Your task to perform on an android device: toggle sleep mode Image 0: 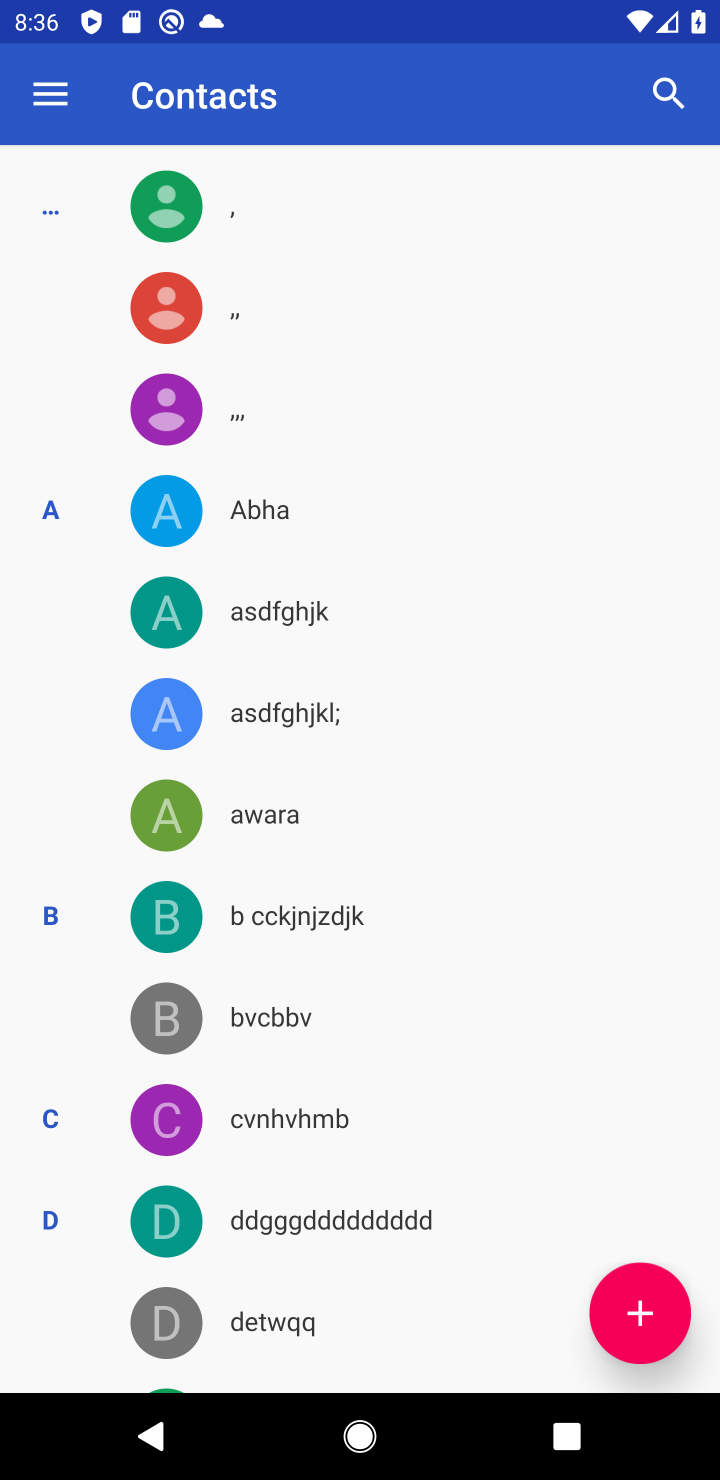
Step 0: press home button
Your task to perform on an android device: toggle sleep mode Image 1: 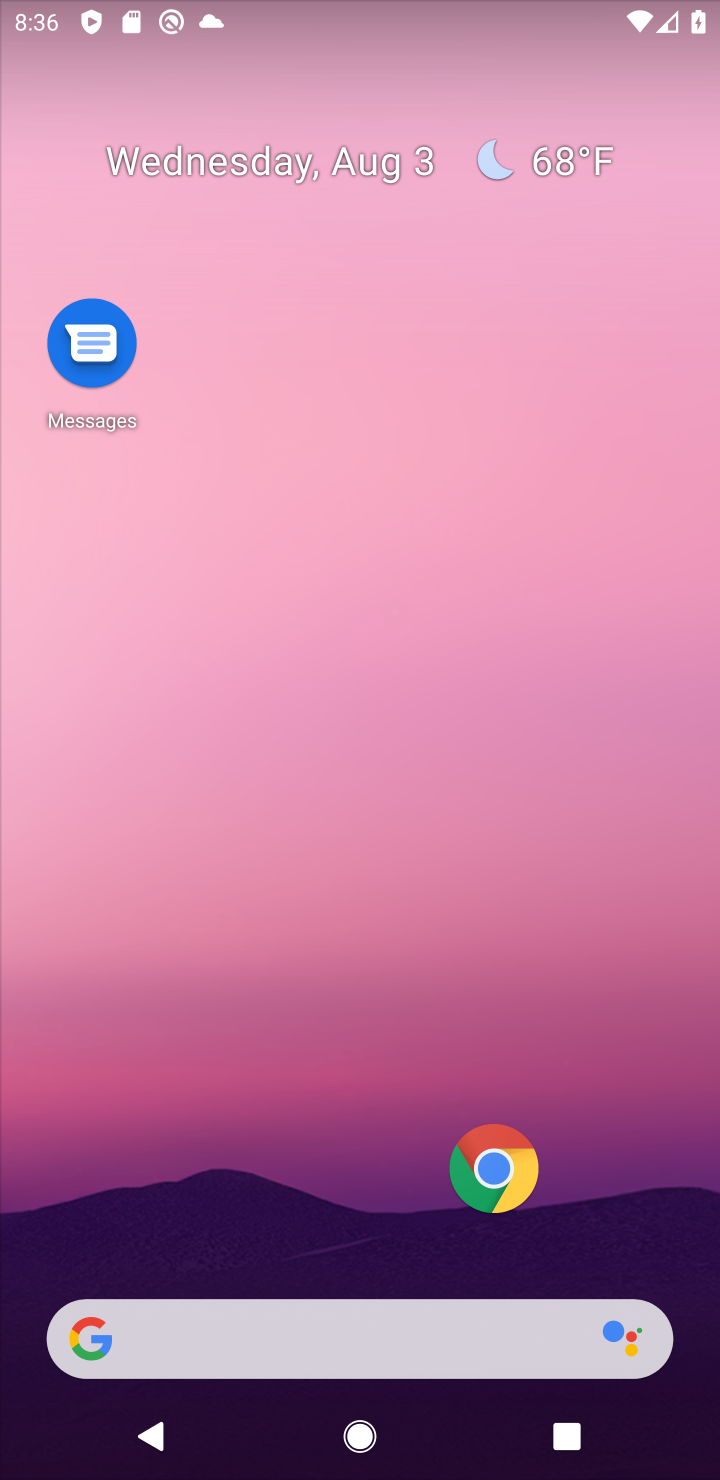
Step 1: drag from (367, 1232) to (221, 112)
Your task to perform on an android device: toggle sleep mode Image 2: 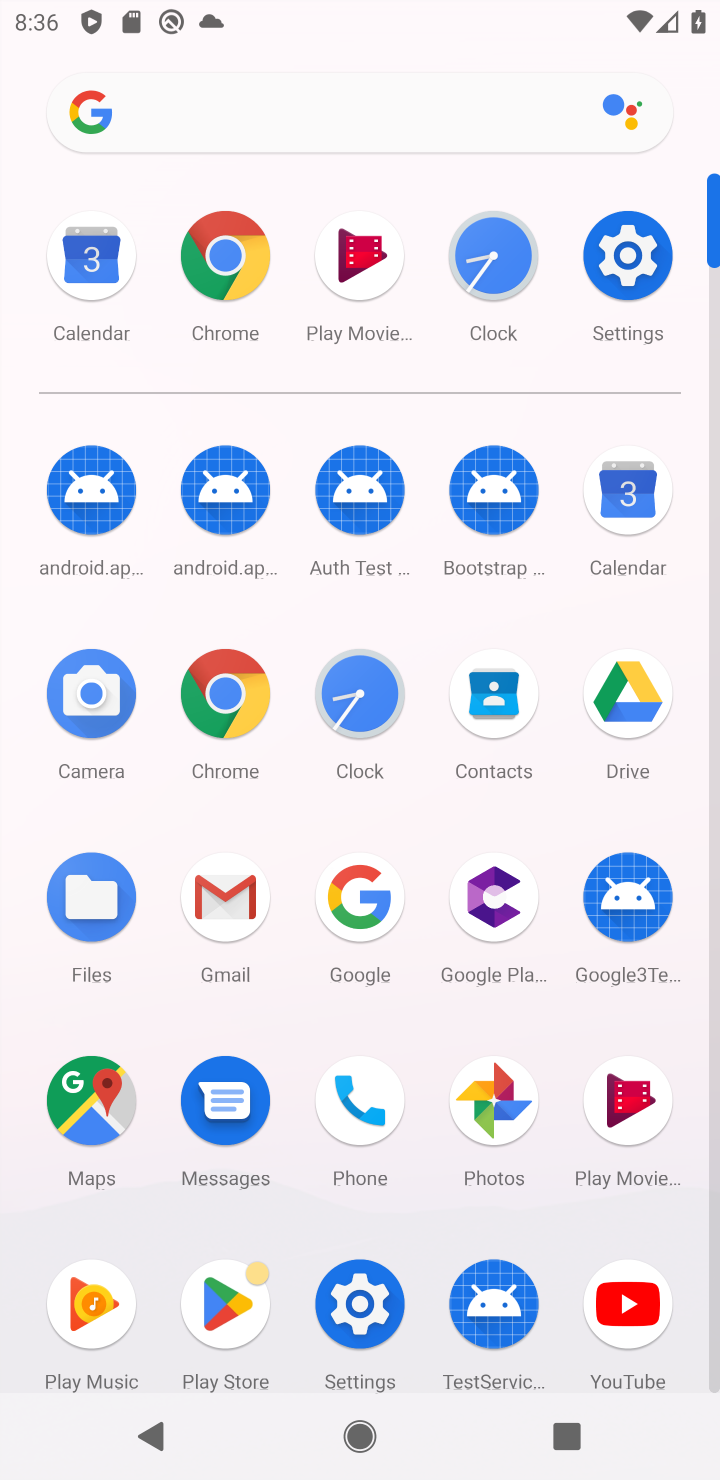
Step 2: click (373, 1300)
Your task to perform on an android device: toggle sleep mode Image 3: 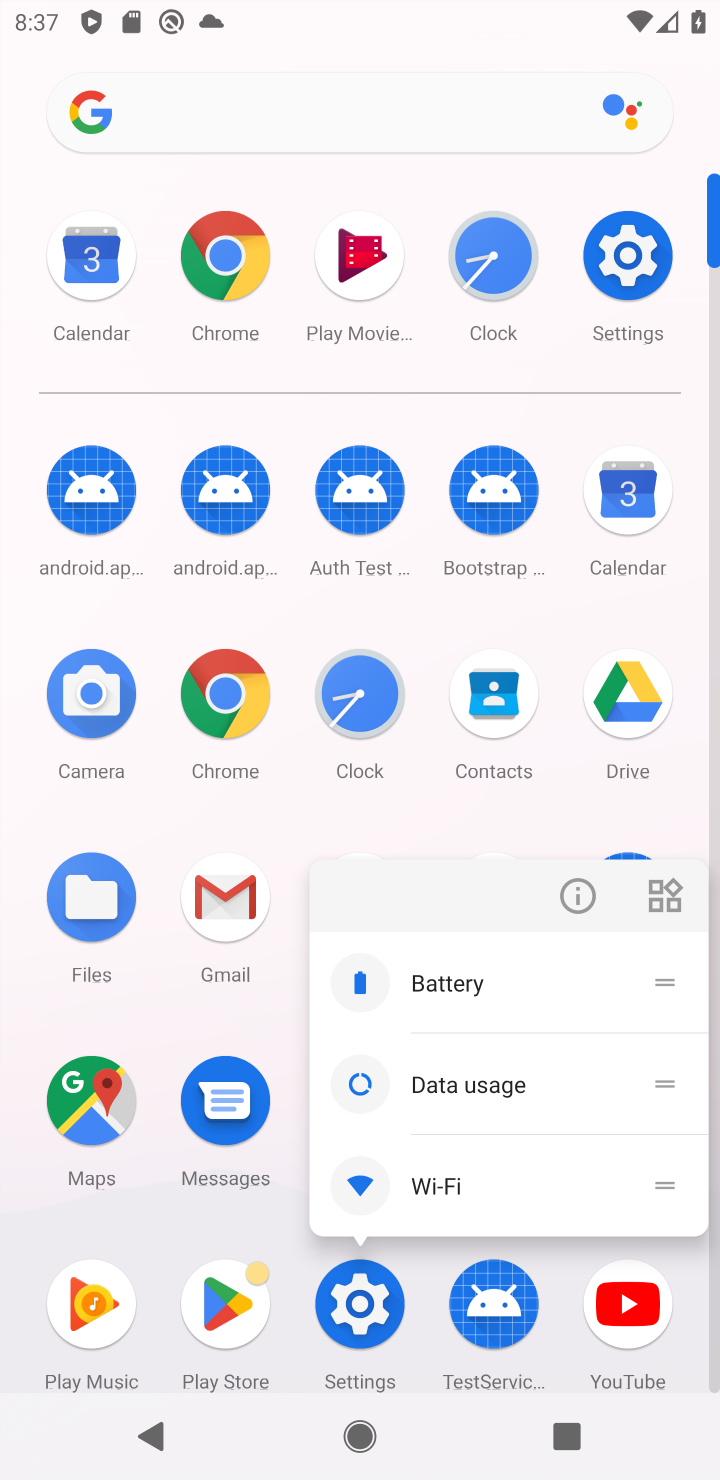
Step 3: click (371, 1302)
Your task to perform on an android device: toggle sleep mode Image 4: 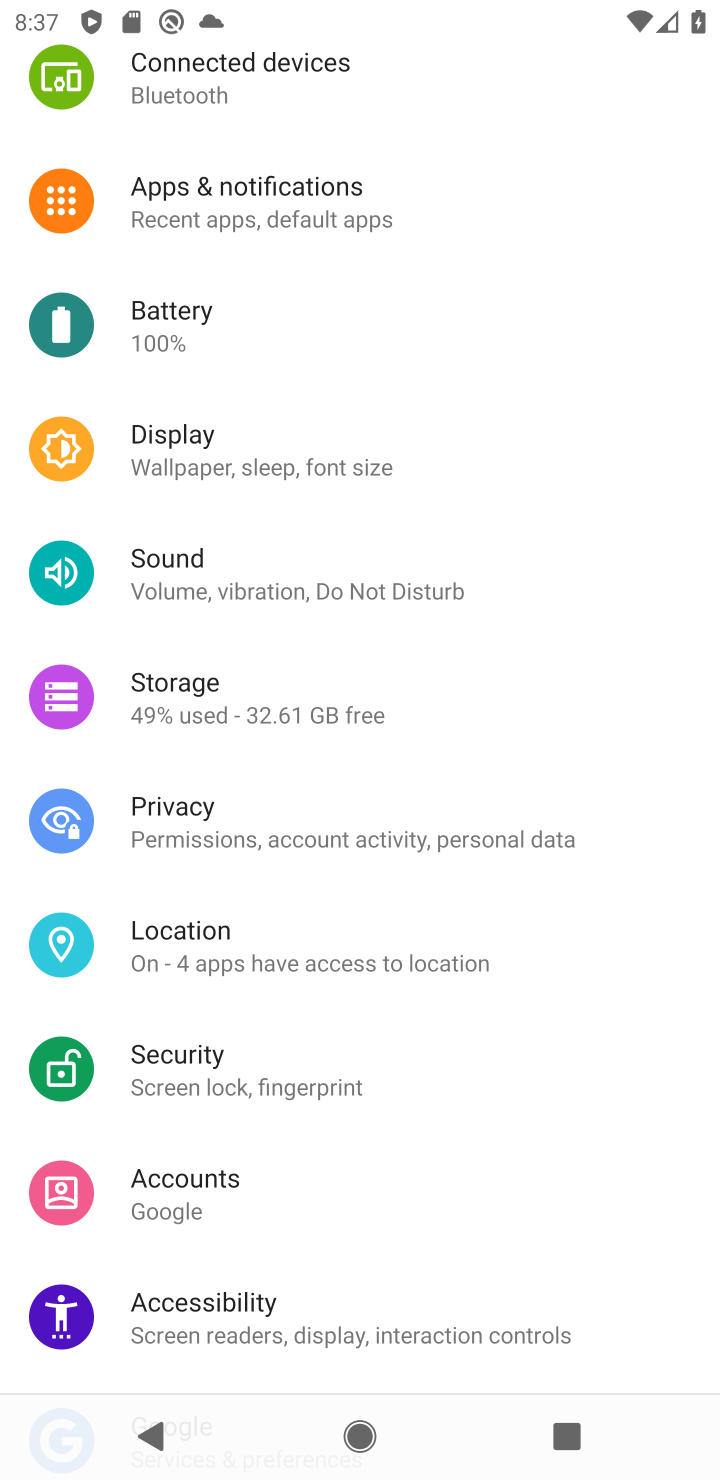
Step 4: task complete